Your task to perform on an android device: Open the phone app and click the voicemail tab. Image 0: 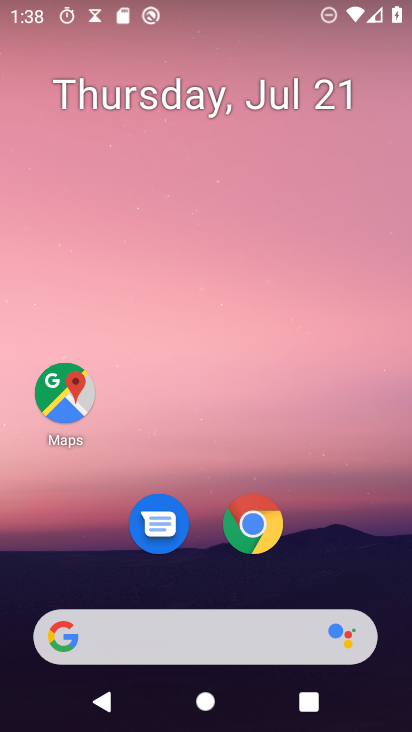
Step 0: drag from (181, 633) to (305, 263)
Your task to perform on an android device: Open the phone app and click the voicemail tab. Image 1: 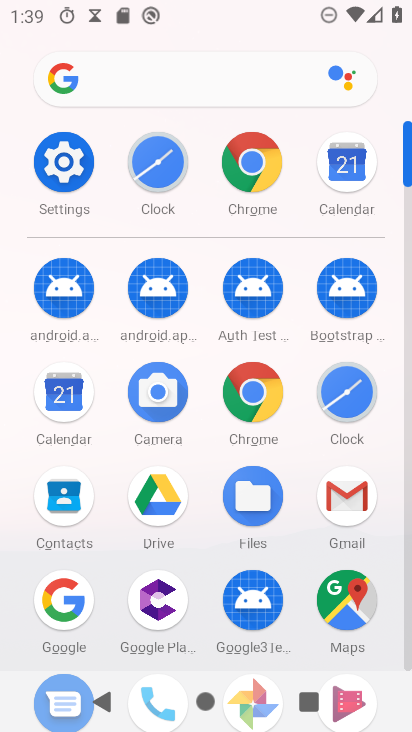
Step 1: drag from (186, 610) to (307, 305)
Your task to perform on an android device: Open the phone app and click the voicemail tab. Image 2: 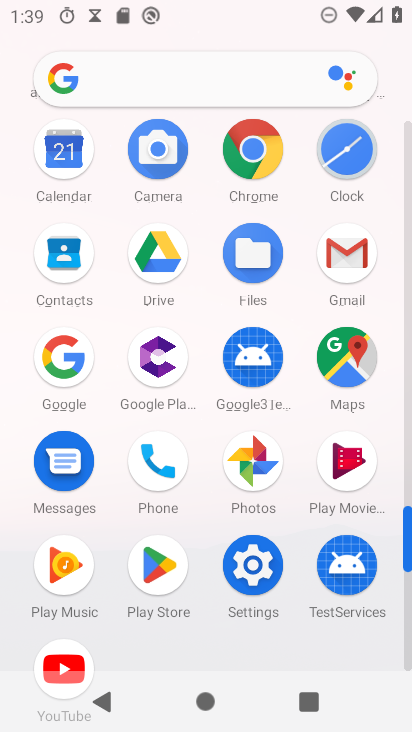
Step 2: click (163, 459)
Your task to perform on an android device: Open the phone app and click the voicemail tab. Image 3: 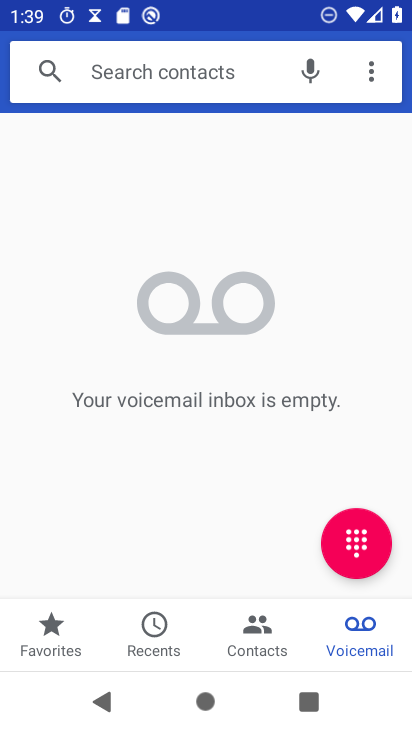
Step 3: task complete